Your task to perform on an android device: Open Chrome and go to the settings page Image 0: 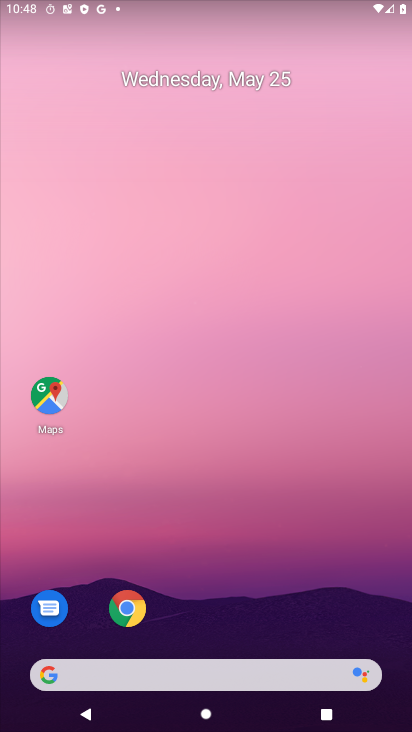
Step 0: click (118, 606)
Your task to perform on an android device: Open Chrome and go to the settings page Image 1: 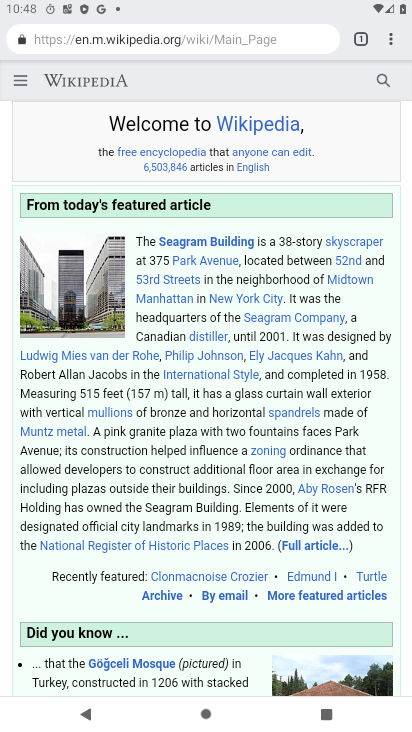
Step 1: click (391, 42)
Your task to perform on an android device: Open Chrome and go to the settings page Image 2: 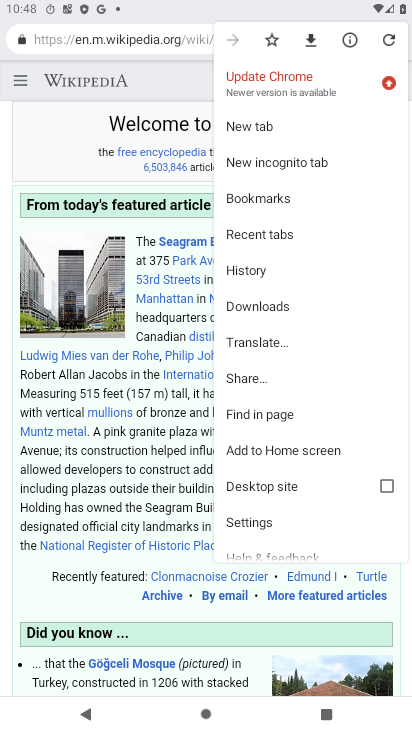
Step 2: click (245, 514)
Your task to perform on an android device: Open Chrome and go to the settings page Image 3: 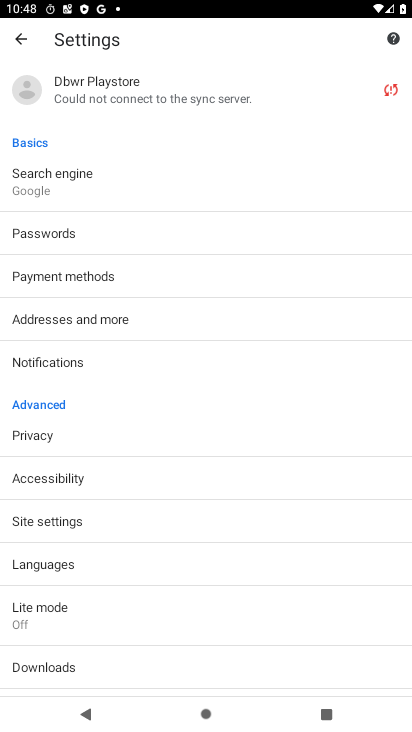
Step 3: task complete